Your task to perform on an android device: find which apps use the phone's location Image 0: 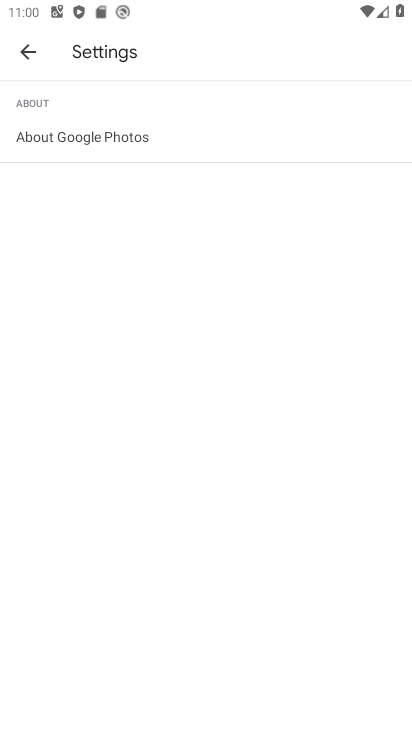
Step 0: press home button
Your task to perform on an android device: find which apps use the phone's location Image 1: 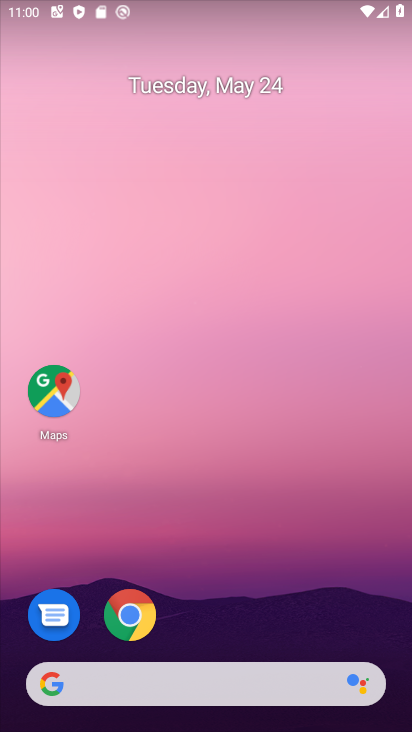
Step 1: drag from (315, 587) to (315, 192)
Your task to perform on an android device: find which apps use the phone's location Image 2: 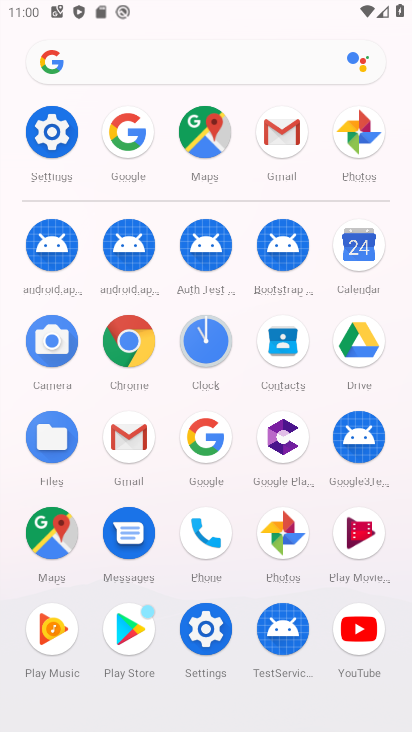
Step 2: click (61, 136)
Your task to perform on an android device: find which apps use the phone's location Image 3: 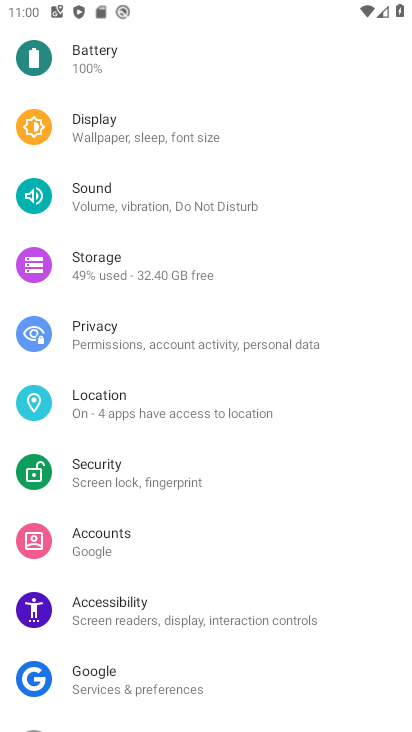
Step 3: click (131, 403)
Your task to perform on an android device: find which apps use the phone's location Image 4: 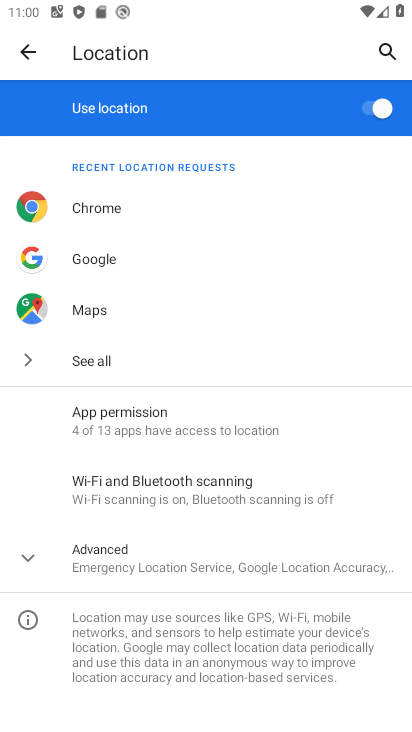
Step 4: click (108, 549)
Your task to perform on an android device: find which apps use the phone's location Image 5: 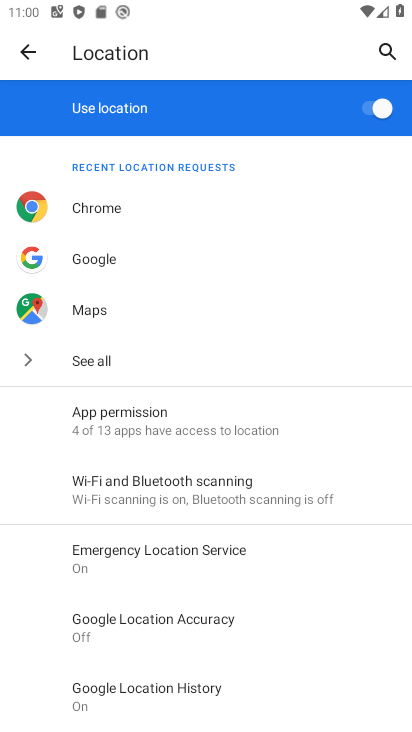
Step 5: task complete